Your task to perform on an android device: turn on location history Image 0: 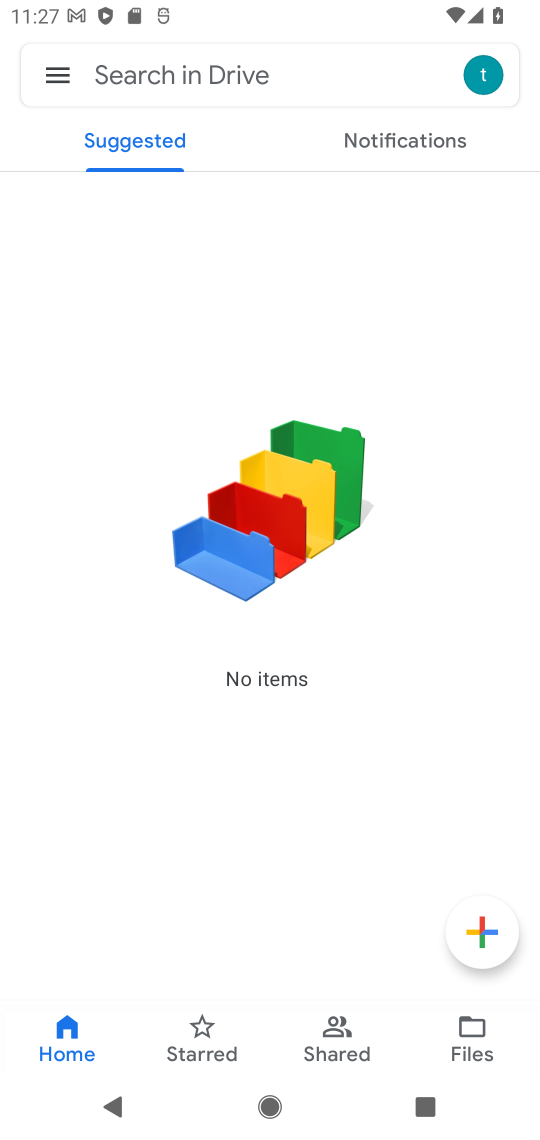
Step 0: press home button
Your task to perform on an android device: turn on location history Image 1: 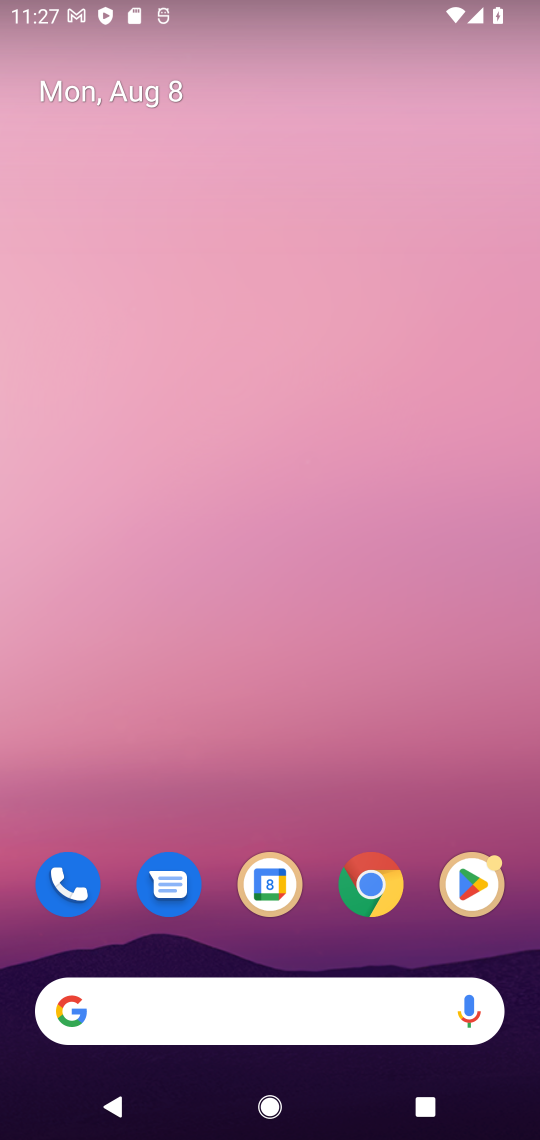
Step 1: drag from (293, 706) to (19, 732)
Your task to perform on an android device: turn on location history Image 2: 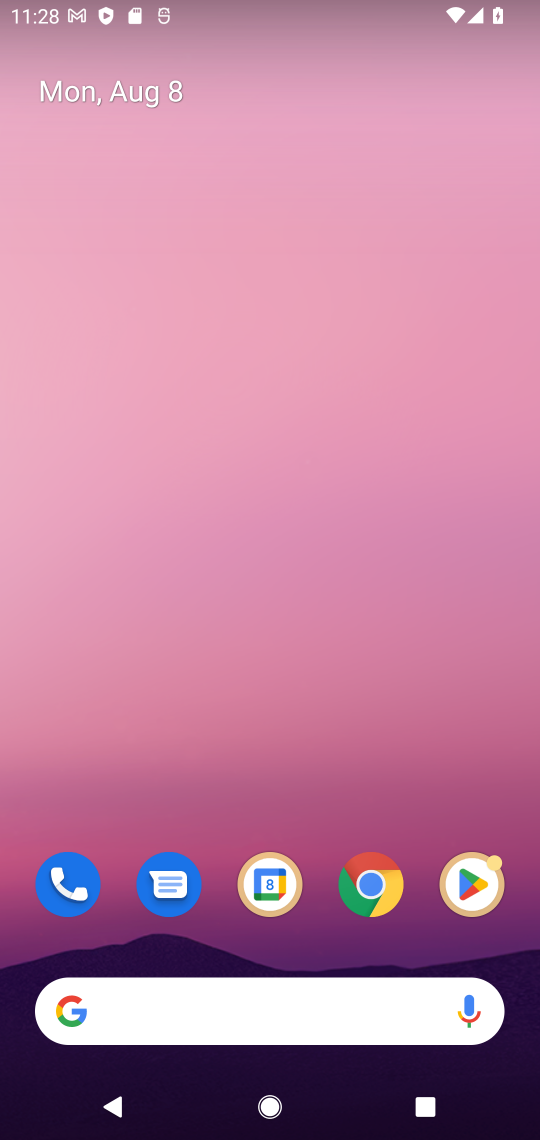
Step 2: drag from (216, 708) to (114, 5)
Your task to perform on an android device: turn on location history Image 3: 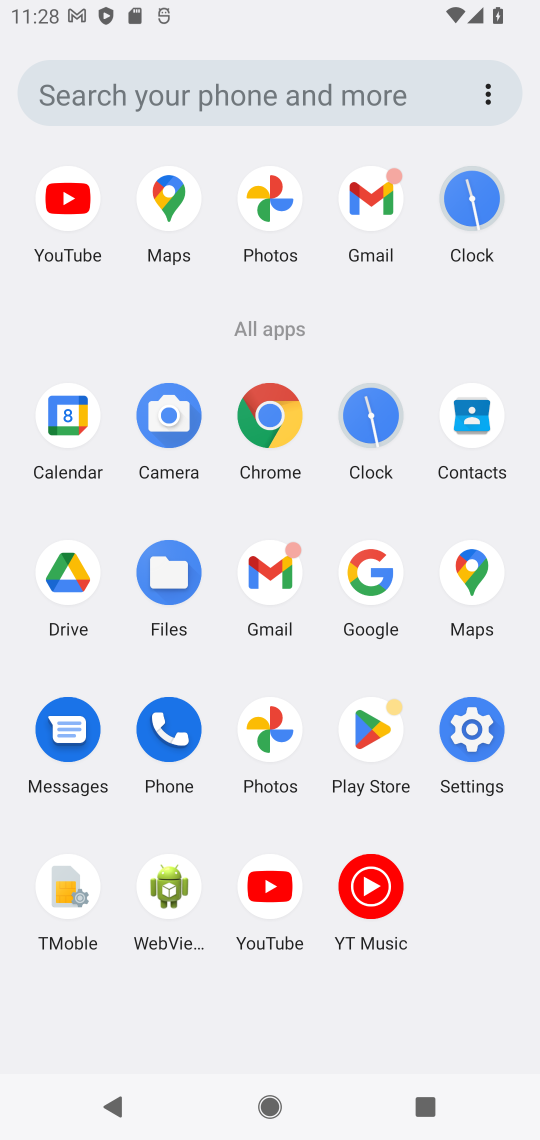
Step 3: click (478, 739)
Your task to perform on an android device: turn on location history Image 4: 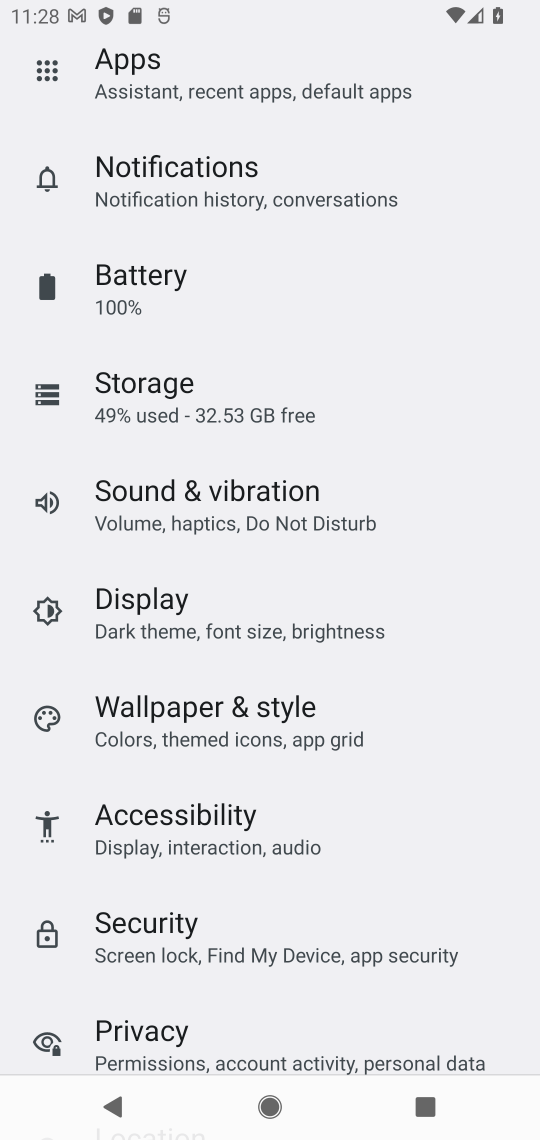
Step 4: drag from (225, 858) to (239, 517)
Your task to perform on an android device: turn on location history Image 5: 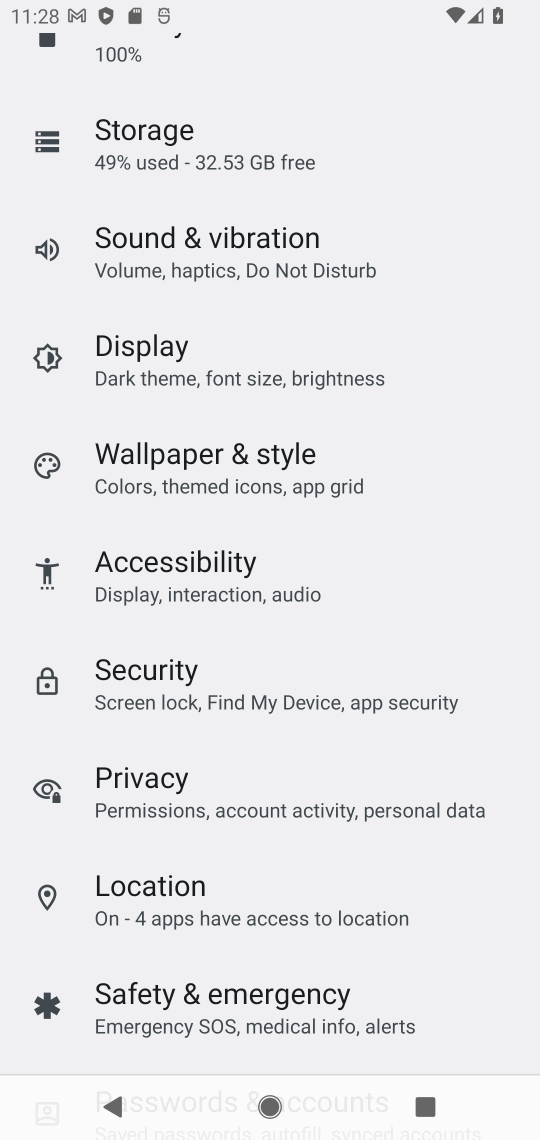
Step 5: click (154, 904)
Your task to perform on an android device: turn on location history Image 6: 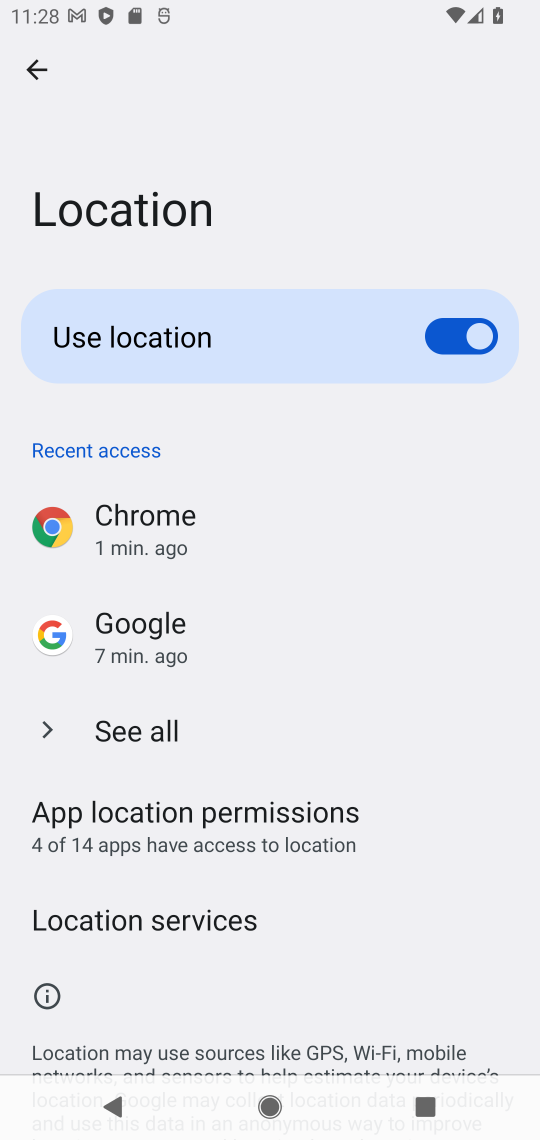
Step 6: drag from (282, 818) to (297, 499)
Your task to perform on an android device: turn on location history Image 7: 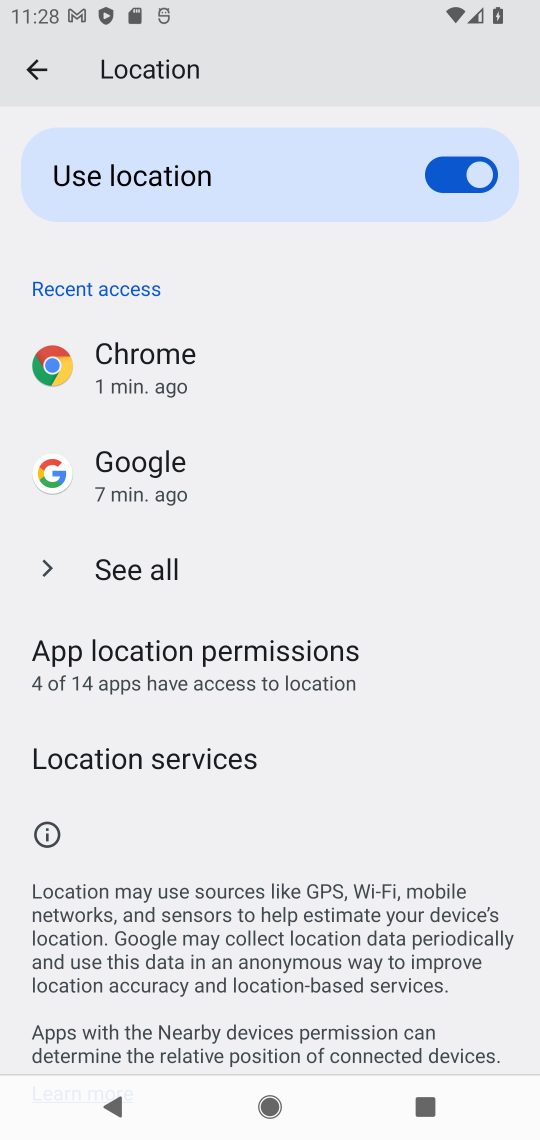
Step 7: click (166, 763)
Your task to perform on an android device: turn on location history Image 8: 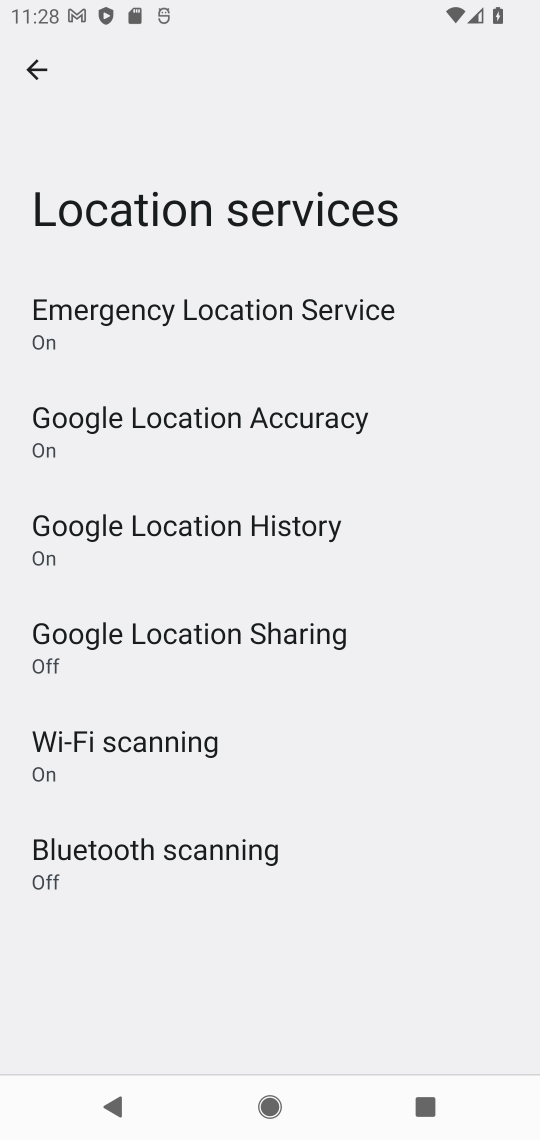
Step 8: click (236, 533)
Your task to perform on an android device: turn on location history Image 9: 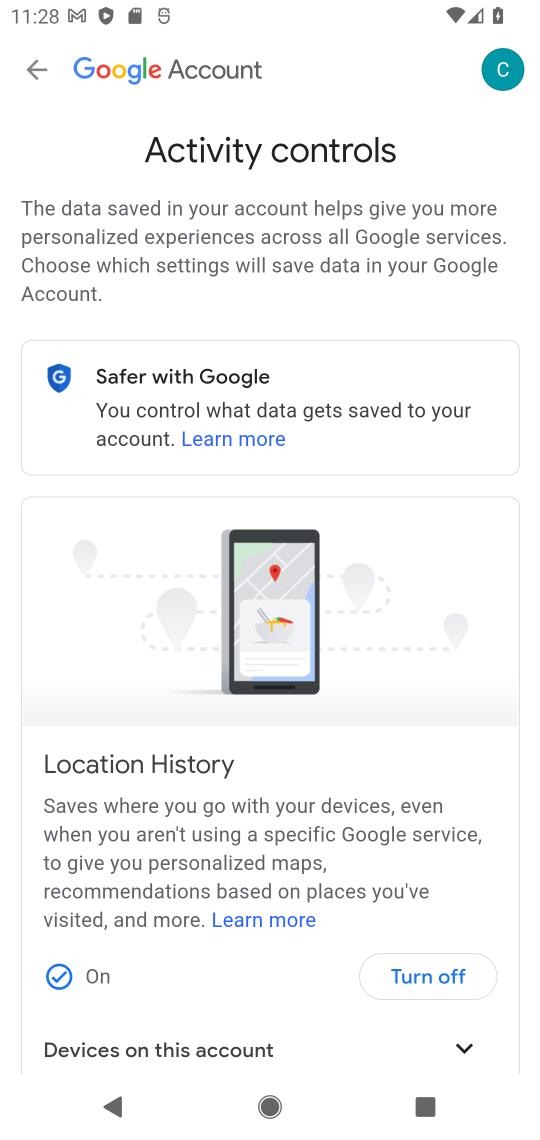
Step 9: task complete